Your task to perform on an android device: empty trash in the gmail app Image 0: 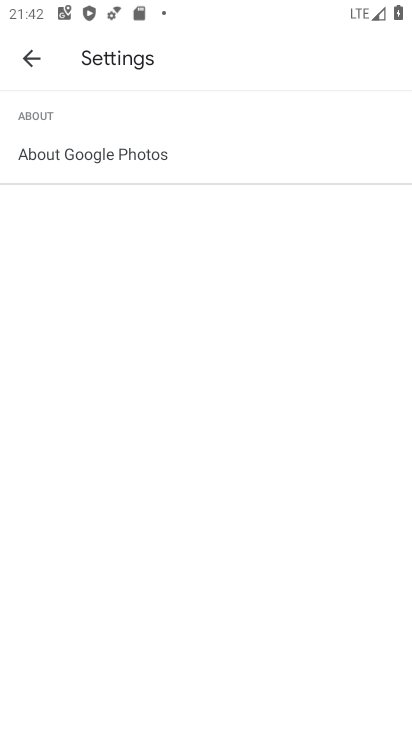
Step 0: press back button
Your task to perform on an android device: empty trash in the gmail app Image 1: 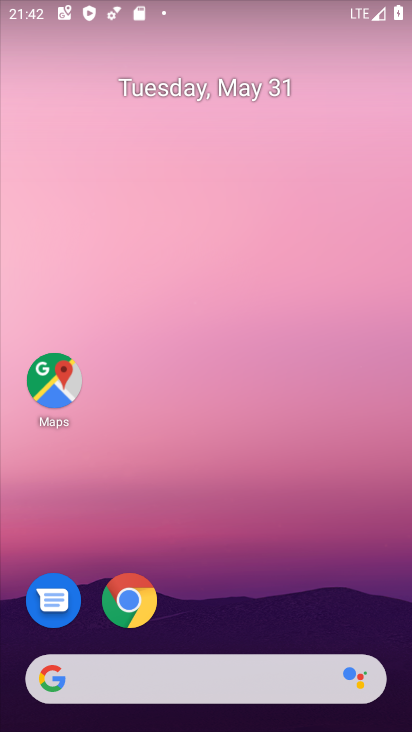
Step 1: drag from (245, 591) to (318, 157)
Your task to perform on an android device: empty trash in the gmail app Image 2: 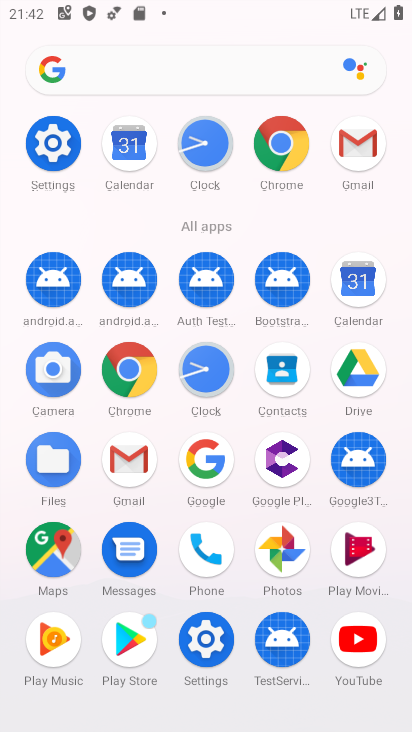
Step 2: click (359, 148)
Your task to perform on an android device: empty trash in the gmail app Image 3: 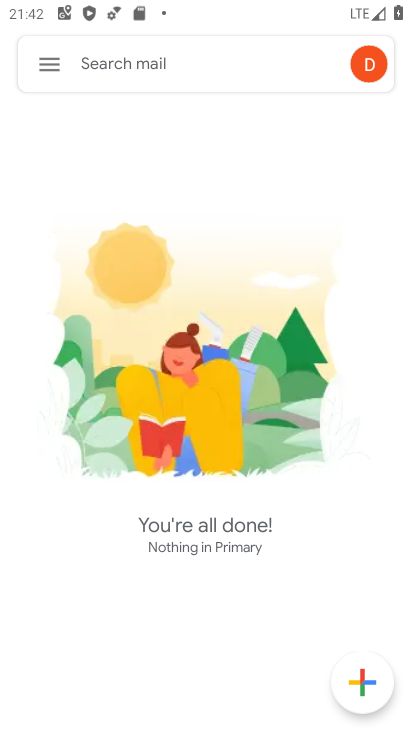
Step 3: click (45, 59)
Your task to perform on an android device: empty trash in the gmail app Image 4: 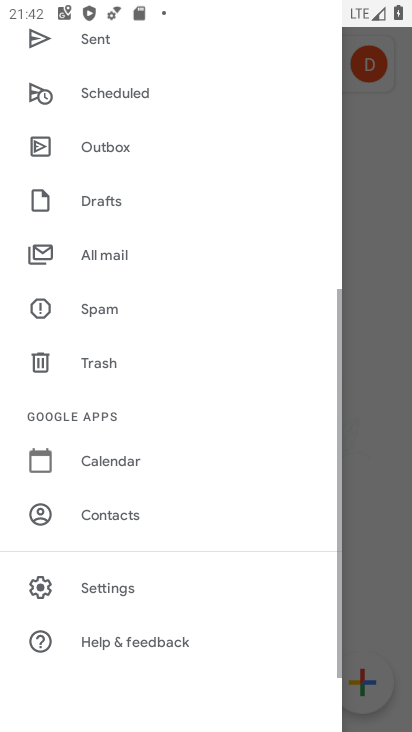
Step 4: click (76, 360)
Your task to perform on an android device: empty trash in the gmail app Image 5: 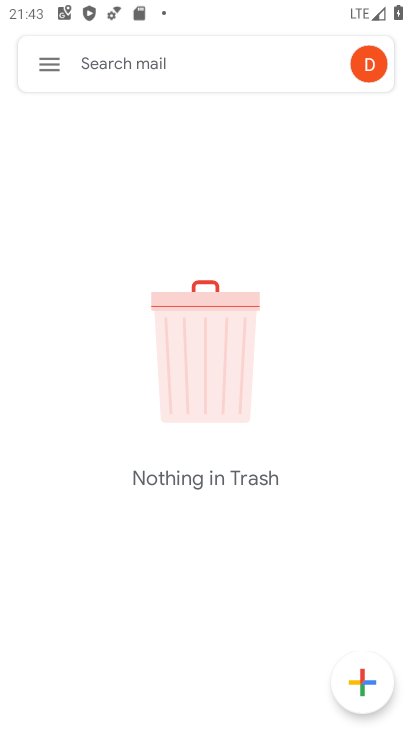
Step 5: task complete